Your task to perform on an android device: turn off location Image 0: 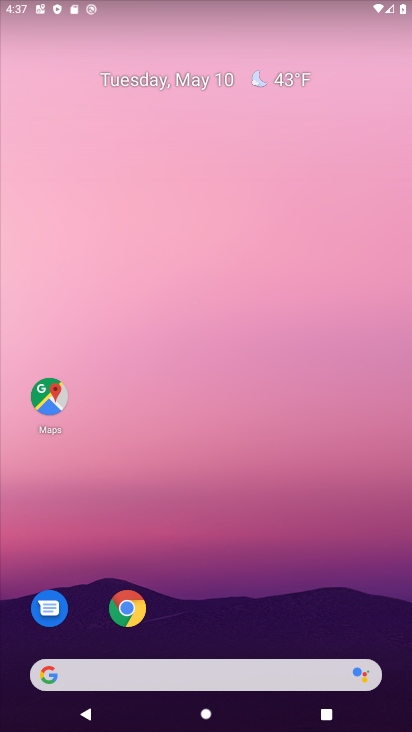
Step 0: drag from (183, 600) to (325, 17)
Your task to perform on an android device: turn off location Image 1: 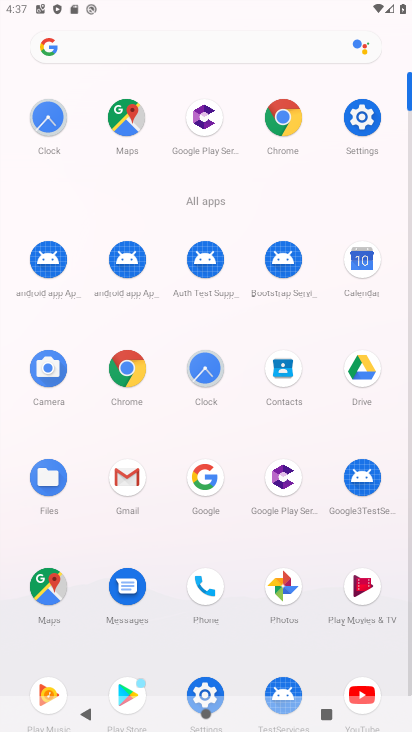
Step 1: click (362, 115)
Your task to perform on an android device: turn off location Image 2: 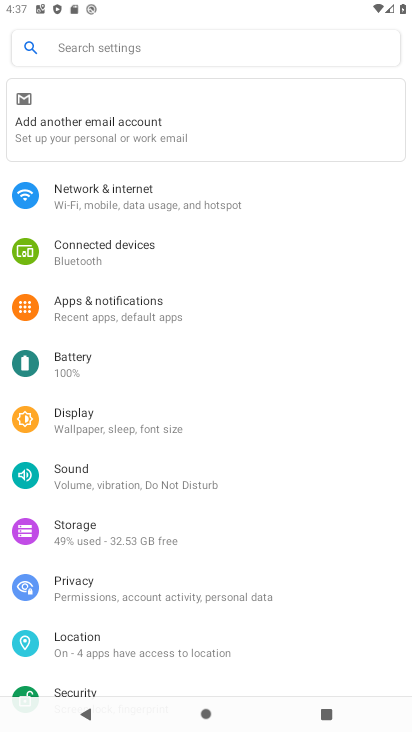
Step 2: click (95, 634)
Your task to perform on an android device: turn off location Image 3: 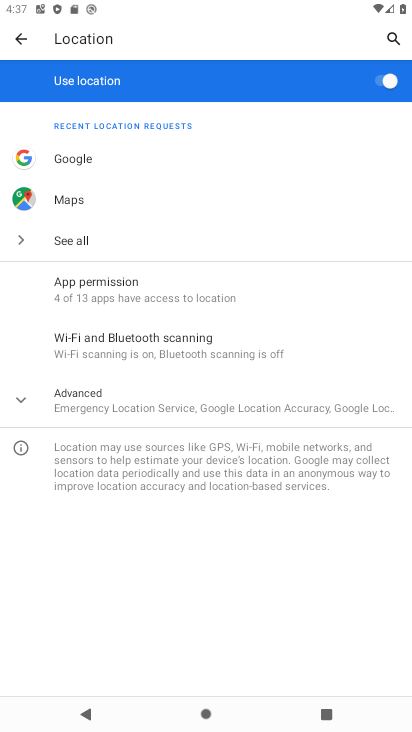
Step 3: click (379, 80)
Your task to perform on an android device: turn off location Image 4: 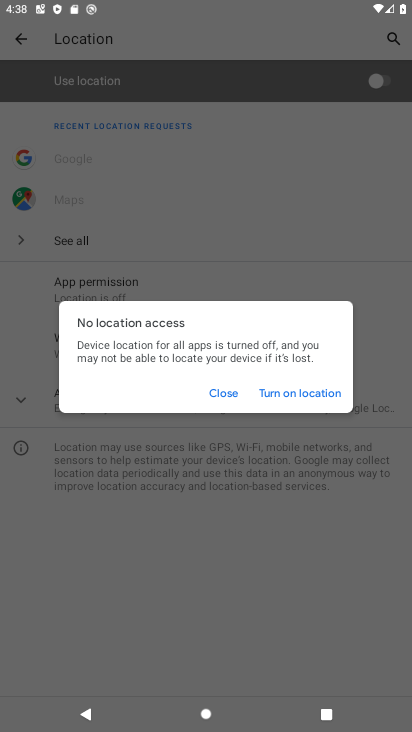
Step 4: task complete